Your task to perform on an android device: delete a single message in the gmail app Image 0: 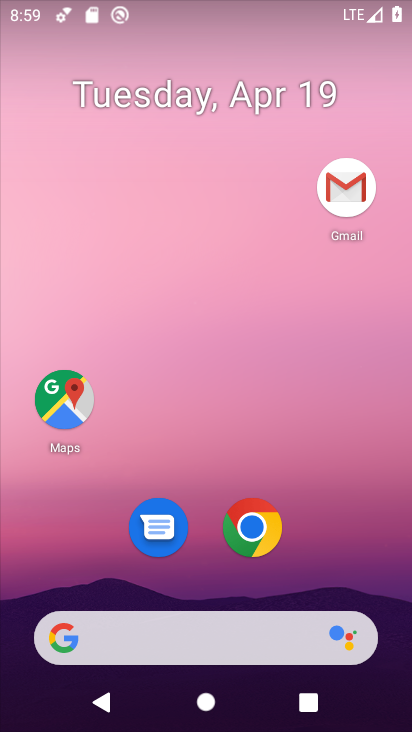
Step 0: press home button
Your task to perform on an android device: delete a single message in the gmail app Image 1: 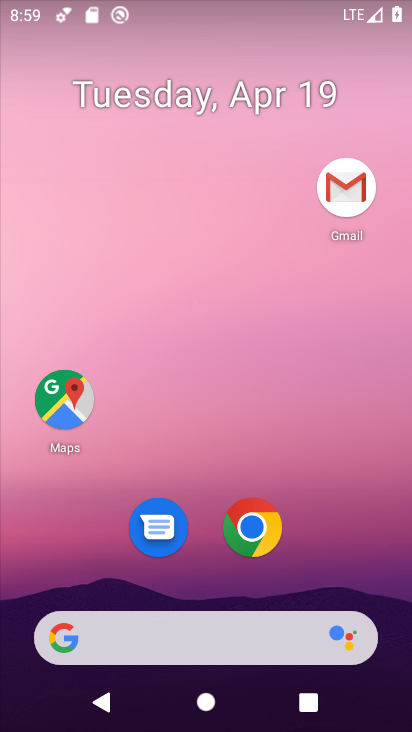
Step 1: click (360, 190)
Your task to perform on an android device: delete a single message in the gmail app Image 2: 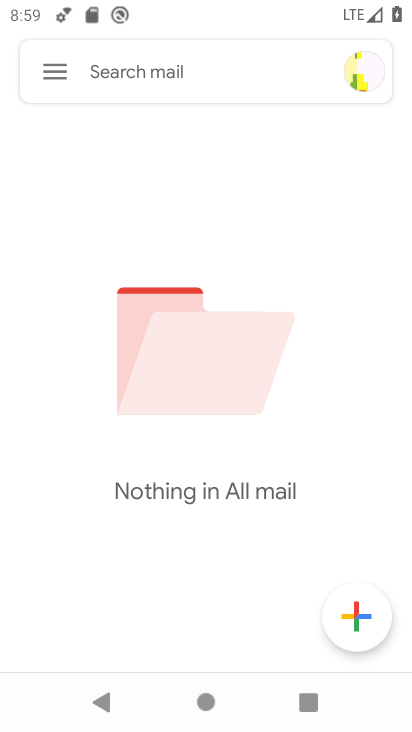
Step 2: task complete